Your task to perform on an android device: add a label to a message in the gmail app Image 0: 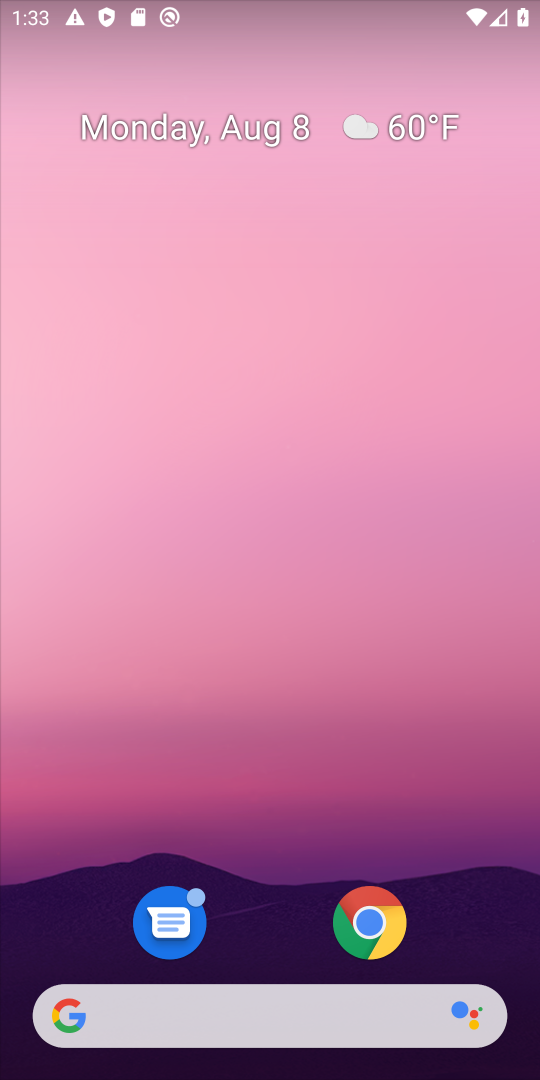
Step 0: drag from (309, 871) to (357, 71)
Your task to perform on an android device: add a label to a message in the gmail app Image 1: 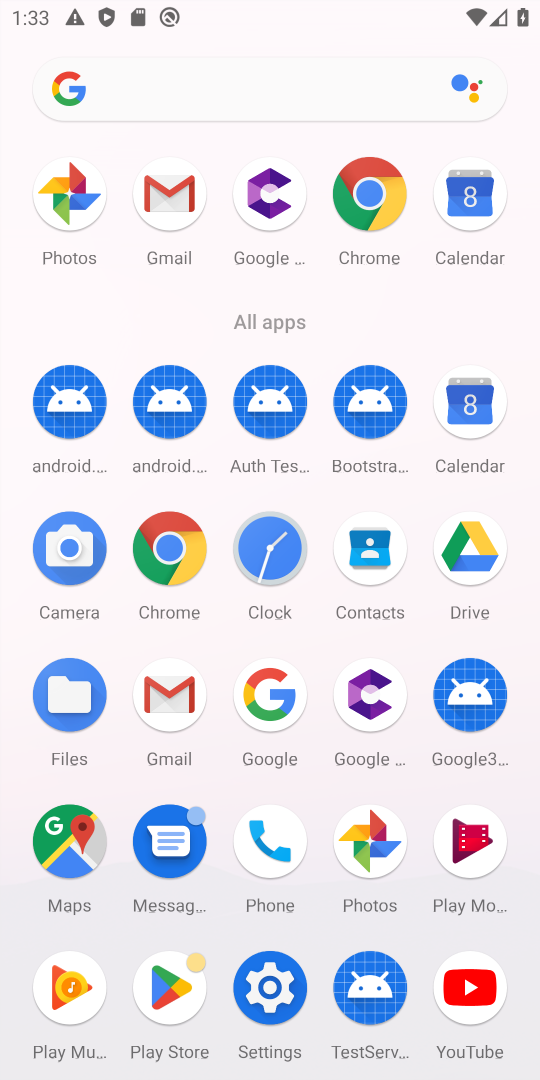
Step 1: click (171, 695)
Your task to perform on an android device: add a label to a message in the gmail app Image 2: 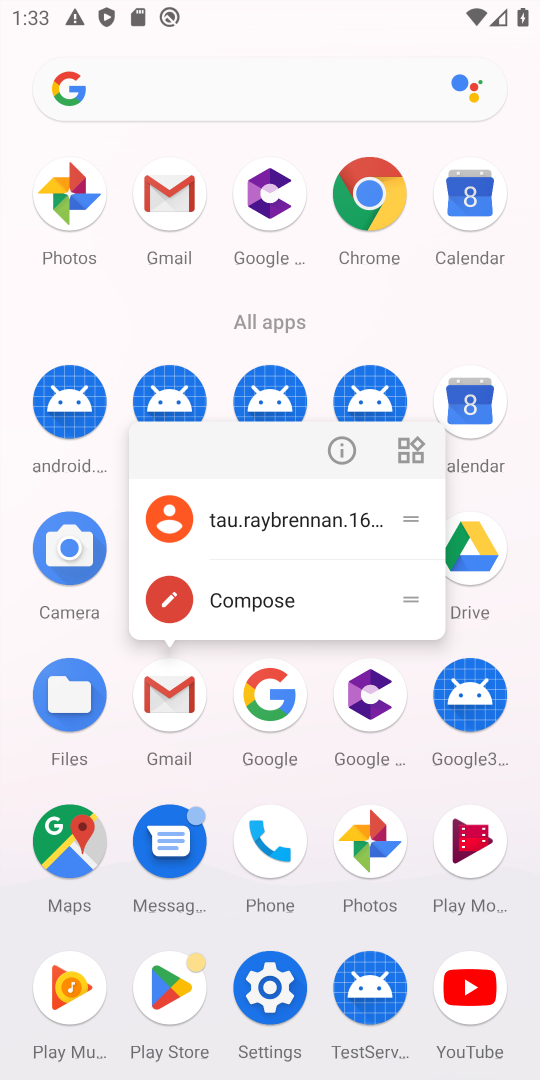
Step 2: click (171, 695)
Your task to perform on an android device: add a label to a message in the gmail app Image 3: 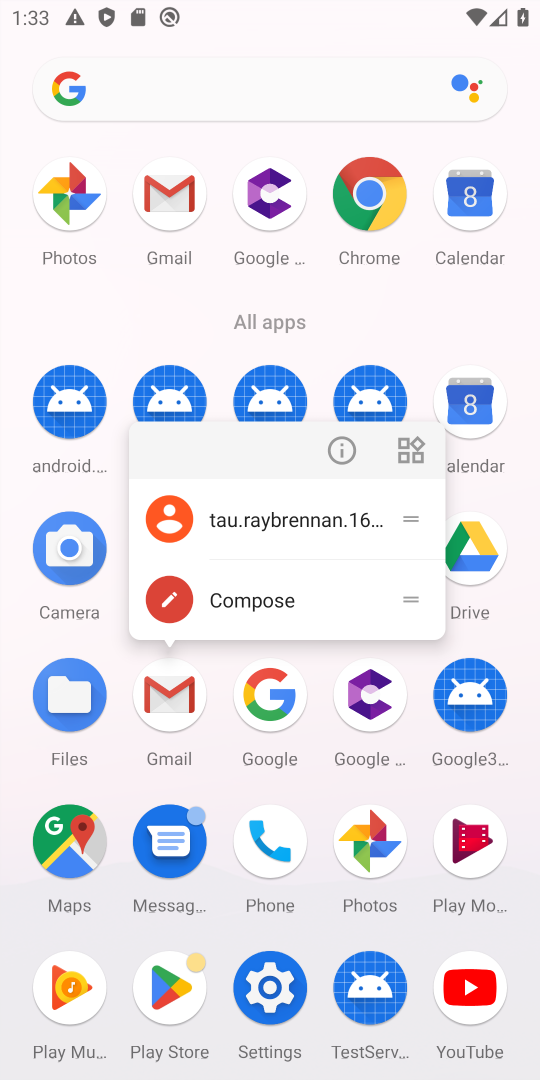
Step 3: click (215, 768)
Your task to perform on an android device: add a label to a message in the gmail app Image 4: 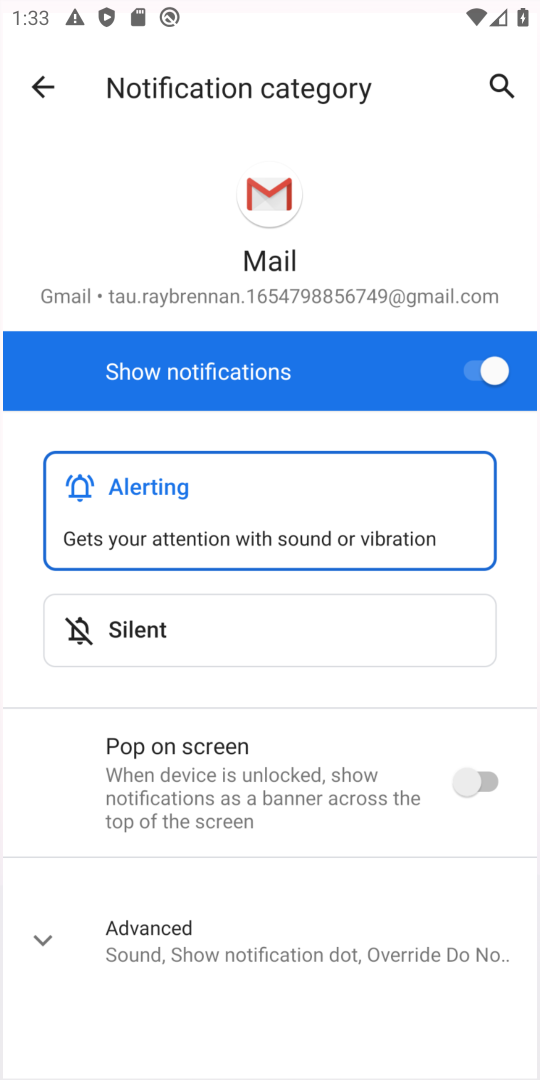
Step 4: click (172, 683)
Your task to perform on an android device: add a label to a message in the gmail app Image 5: 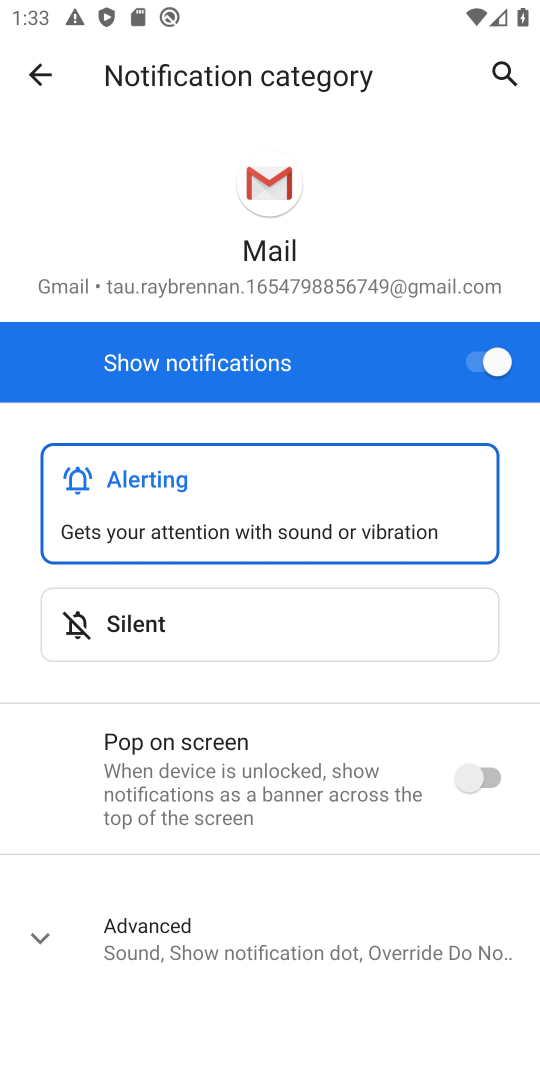
Step 5: click (50, 59)
Your task to perform on an android device: add a label to a message in the gmail app Image 6: 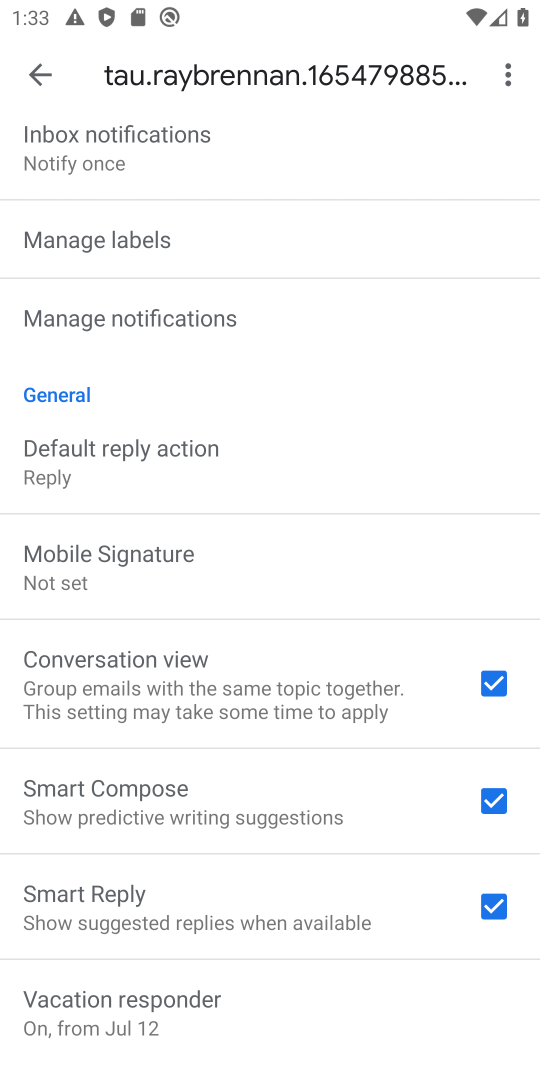
Step 6: click (46, 85)
Your task to perform on an android device: add a label to a message in the gmail app Image 7: 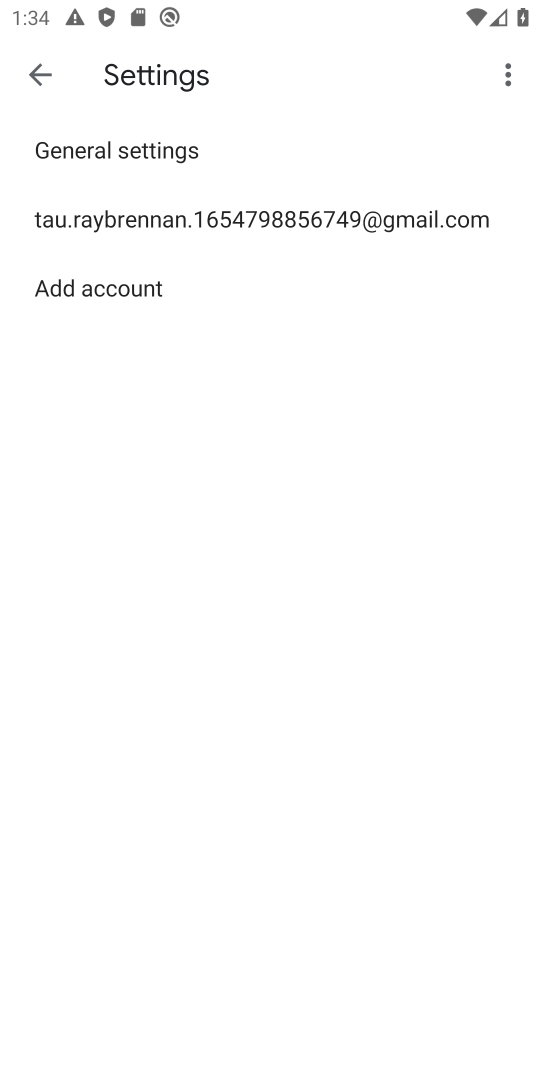
Step 7: click (46, 85)
Your task to perform on an android device: add a label to a message in the gmail app Image 8: 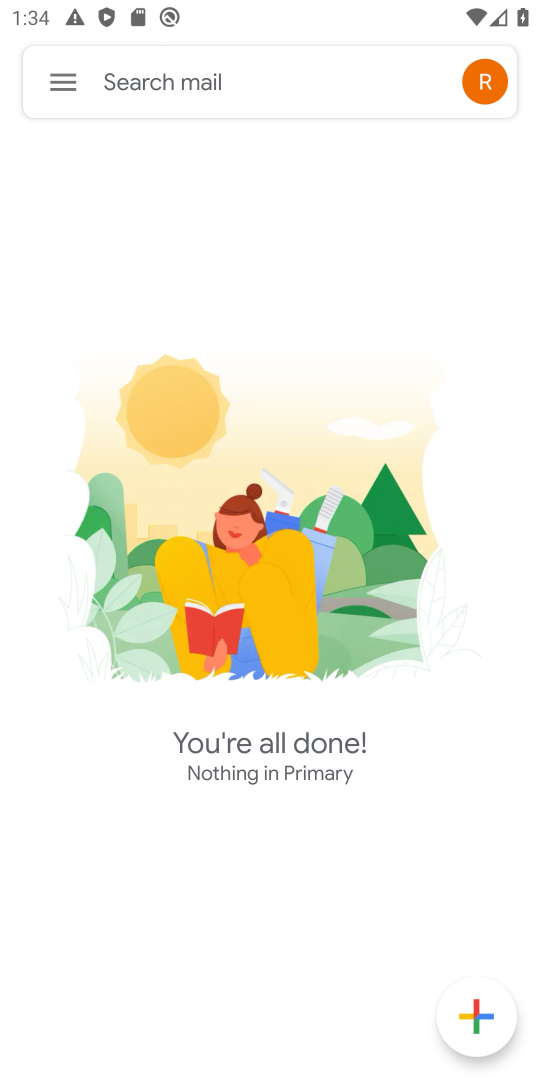
Step 8: click (46, 85)
Your task to perform on an android device: add a label to a message in the gmail app Image 9: 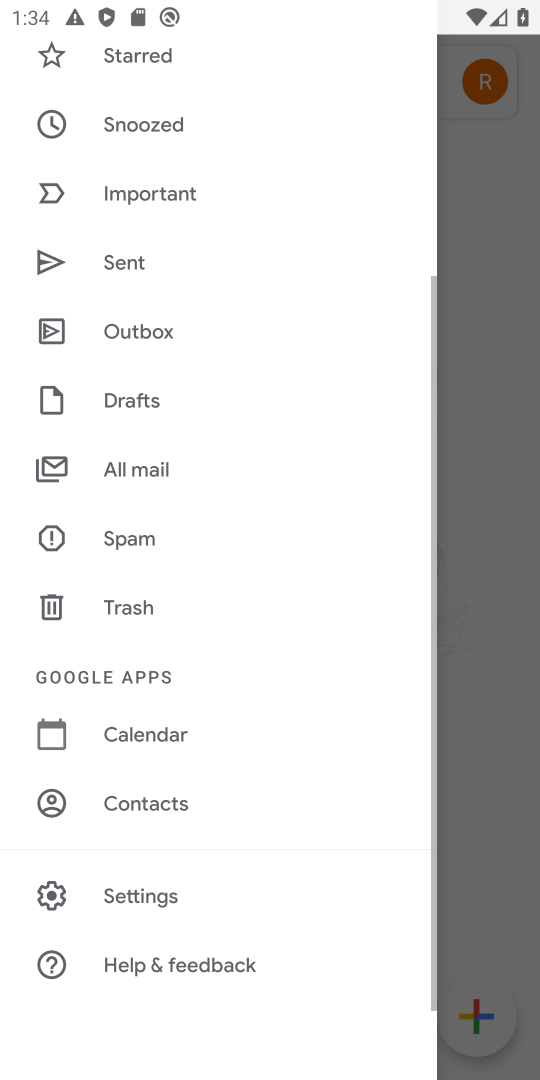
Step 9: click (143, 484)
Your task to perform on an android device: add a label to a message in the gmail app Image 10: 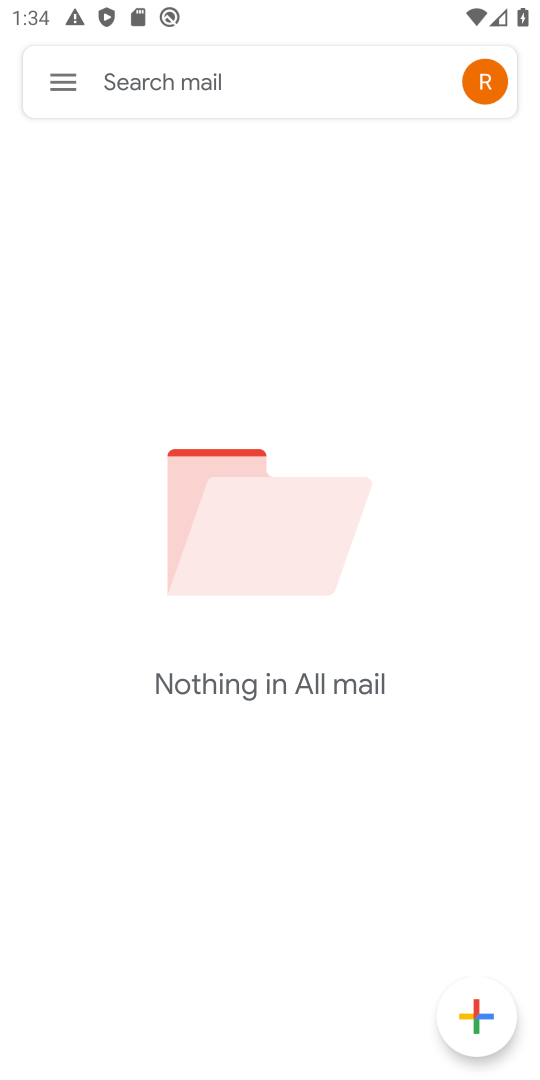
Step 10: task complete